Your task to perform on an android device: Go to location settings Image 0: 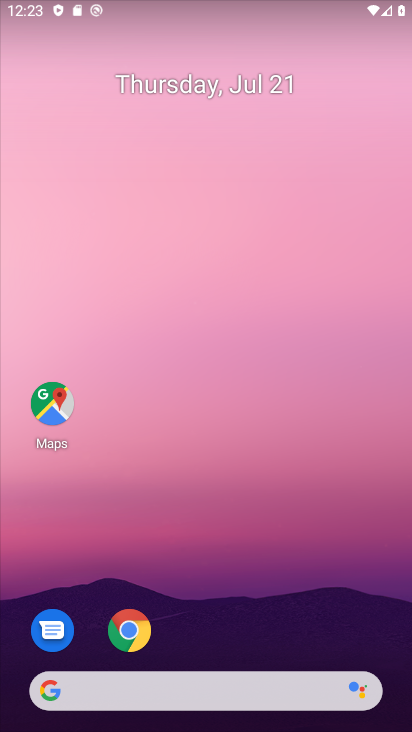
Step 0: drag from (211, 652) to (238, 78)
Your task to perform on an android device: Go to location settings Image 1: 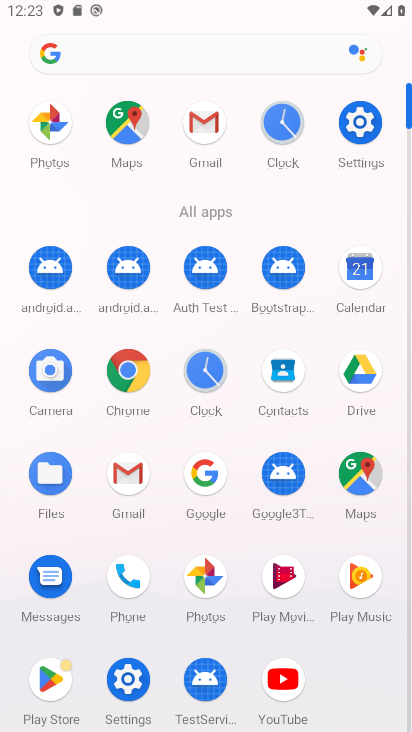
Step 1: click (363, 124)
Your task to perform on an android device: Go to location settings Image 2: 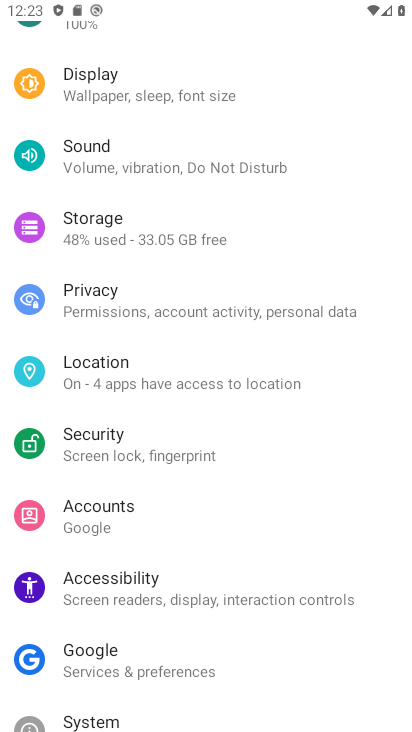
Step 2: click (111, 378)
Your task to perform on an android device: Go to location settings Image 3: 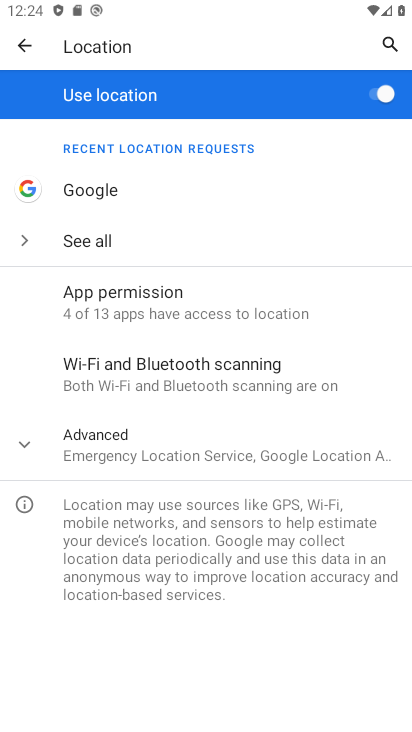
Step 3: task complete